Your task to perform on an android device: Go to location settings Image 0: 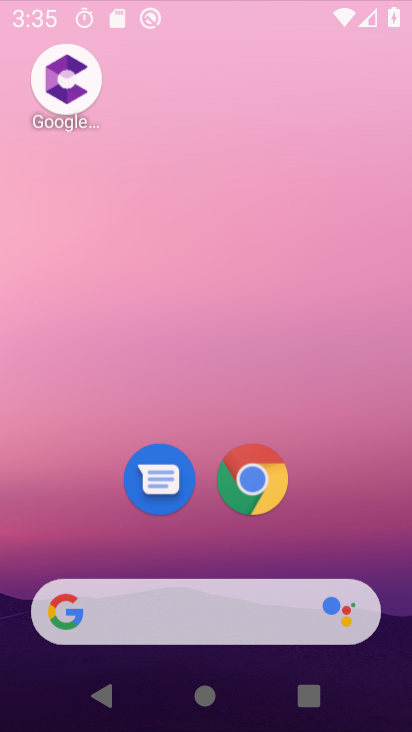
Step 0: press home button
Your task to perform on an android device: Go to location settings Image 1: 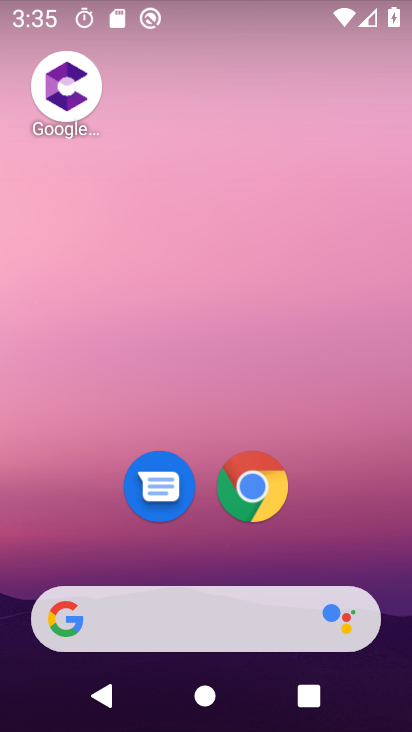
Step 1: drag from (355, 541) to (350, 55)
Your task to perform on an android device: Go to location settings Image 2: 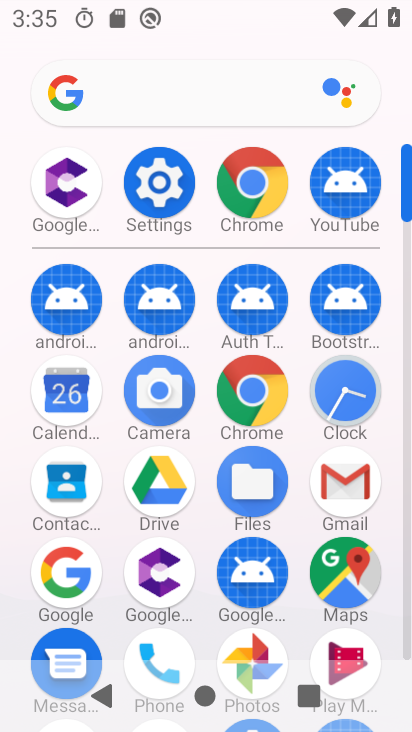
Step 2: click (165, 183)
Your task to perform on an android device: Go to location settings Image 3: 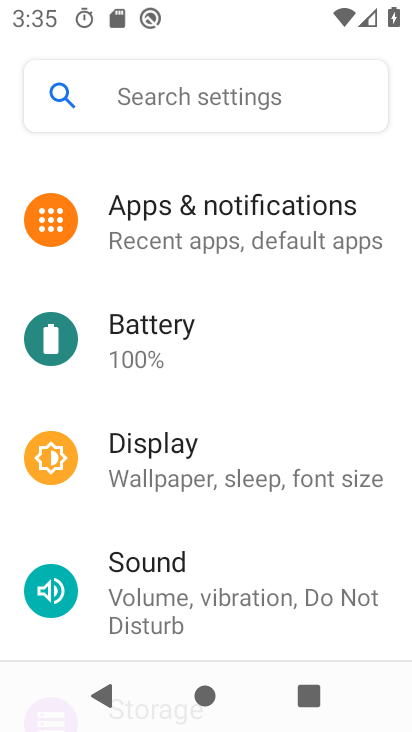
Step 3: drag from (358, 387) to (356, 276)
Your task to perform on an android device: Go to location settings Image 4: 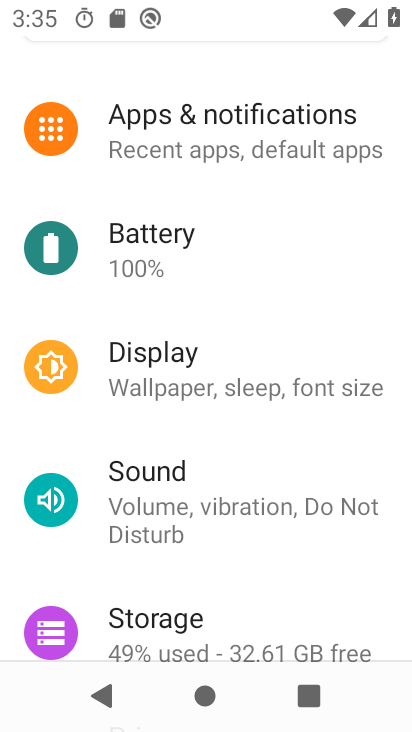
Step 4: drag from (345, 464) to (345, 342)
Your task to perform on an android device: Go to location settings Image 5: 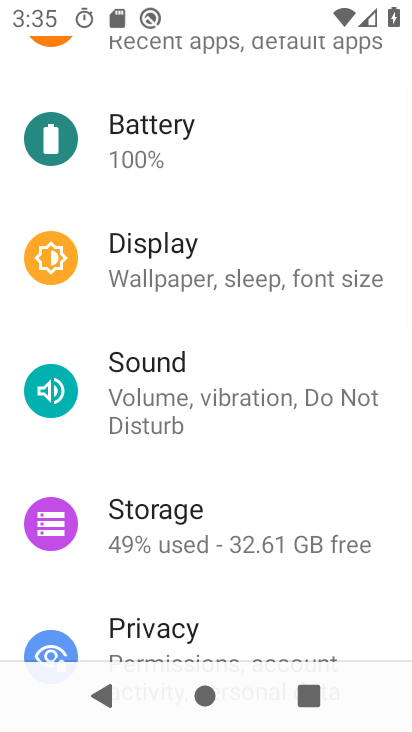
Step 5: drag from (341, 496) to (342, 295)
Your task to perform on an android device: Go to location settings Image 6: 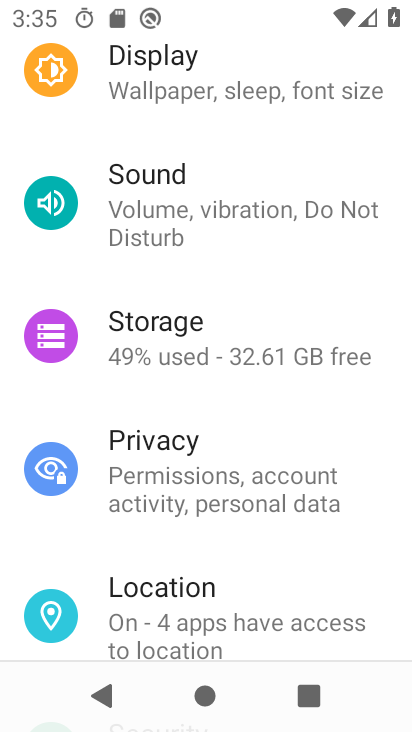
Step 6: drag from (368, 513) to (362, 377)
Your task to perform on an android device: Go to location settings Image 7: 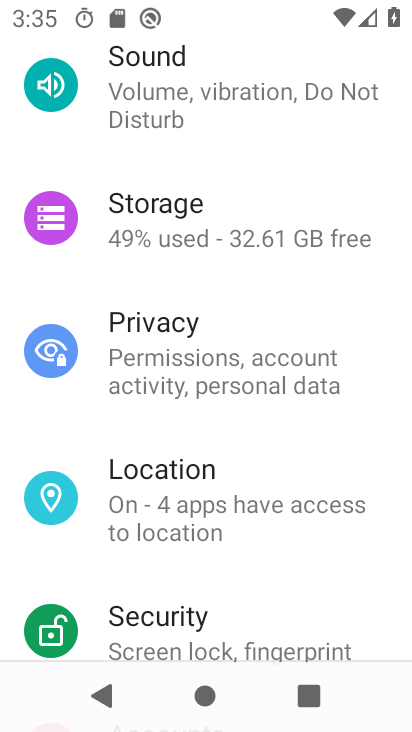
Step 7: drag from (338, 548) to (333, 360)
Your task to perform on an android device: Go to location settings Image 8: 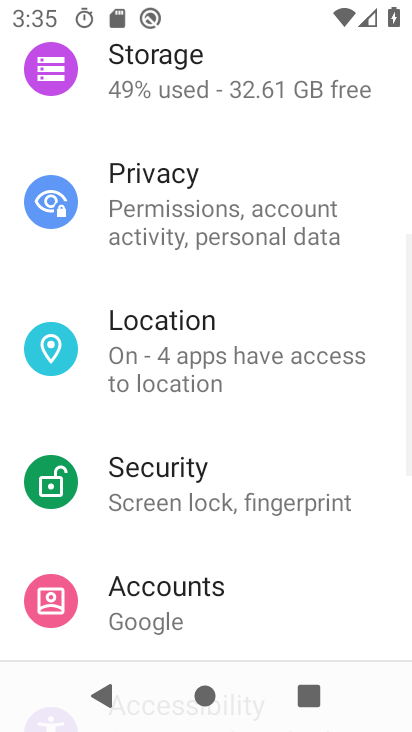
Step 8: drag from (345, 603) to (352, 429)
Your task to perform on an android device: Go to location settings Image 9: 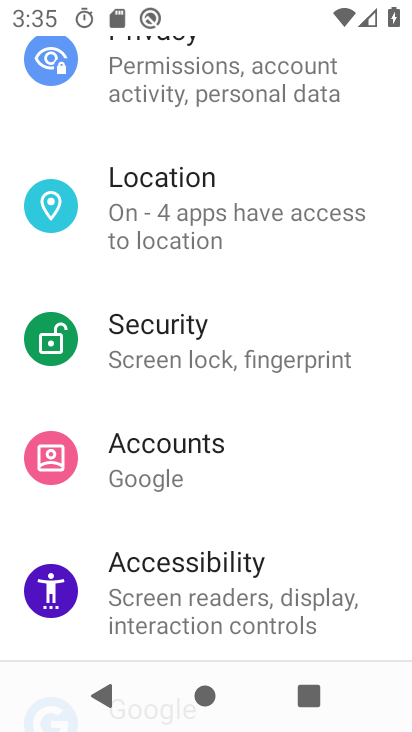
Step 9: drag from (345, 506) to (343, 346)
Your task to perform on an android device: Go to location settings Image 10: 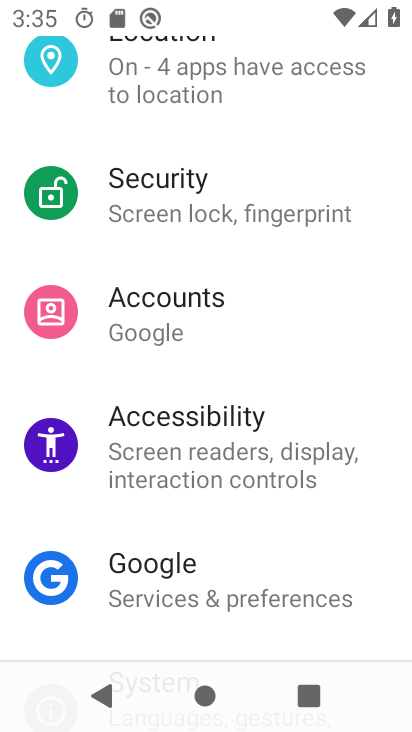
Step 10: drag from (357, 157) to (373, 289)
Your task to perform on an android device: Go to location settings Image 11: 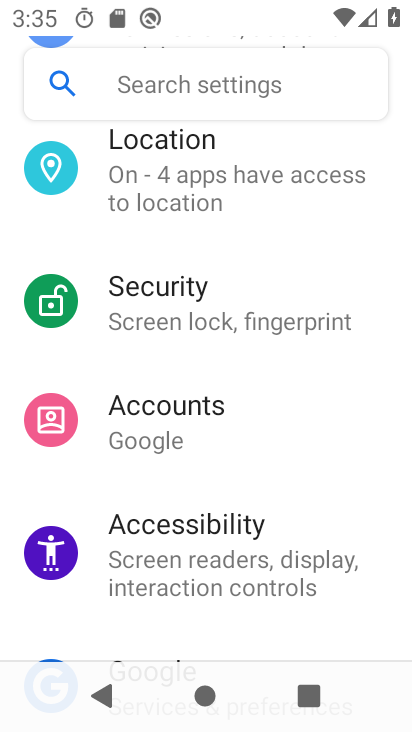
Step 11: drag from (368, 153) to (366, 287)
Your task to perform on an android device: Go to location settings Image 12: 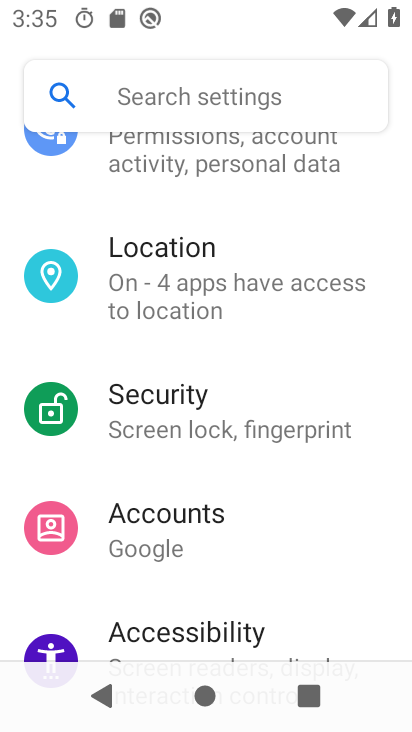
Step 12: drag from (373, 166) to (373, 325)
Your task to perform on an android device: Go to location settings Image 13: 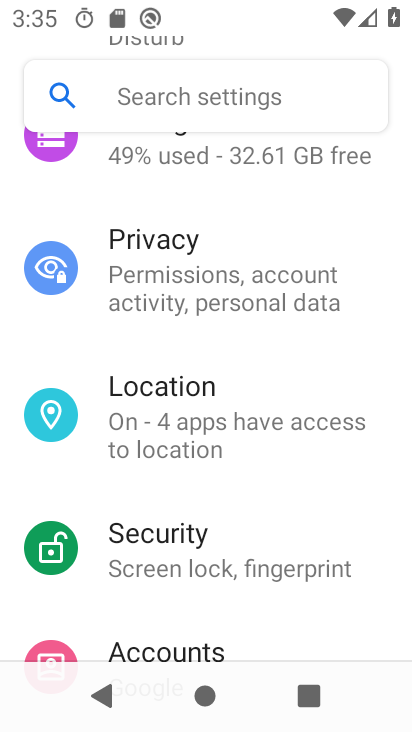
Step 13: drag from (367, 211) to (372, 332)
Your task to perform on an android device: Go to location settings Image 14: 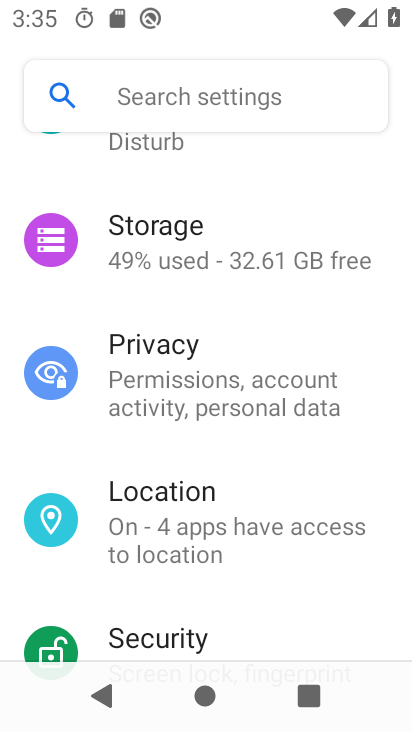
Step 14: drag from (362, 204) to (369, 348)
Your task to perform on an android device: Go to location settings Image 15: 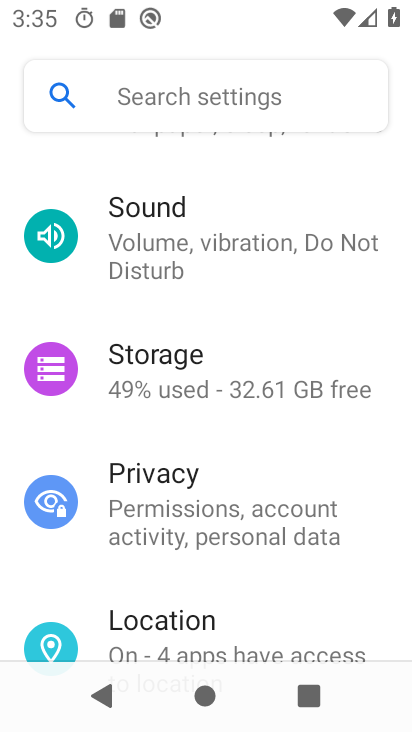
Step 15: drag from (362, 181) to (355, 410)
Your task to perform on an android device: Go to location settings Image 16: 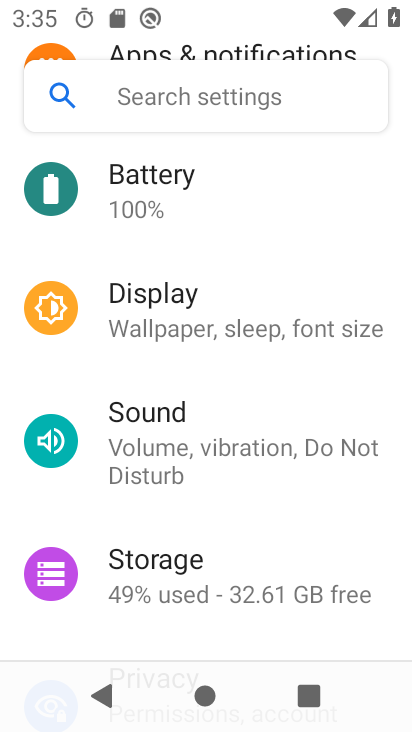
Step 16: drag from (318, 440) to (315, 284)
Your task to perform on an android device: Go to location settings Image 17: 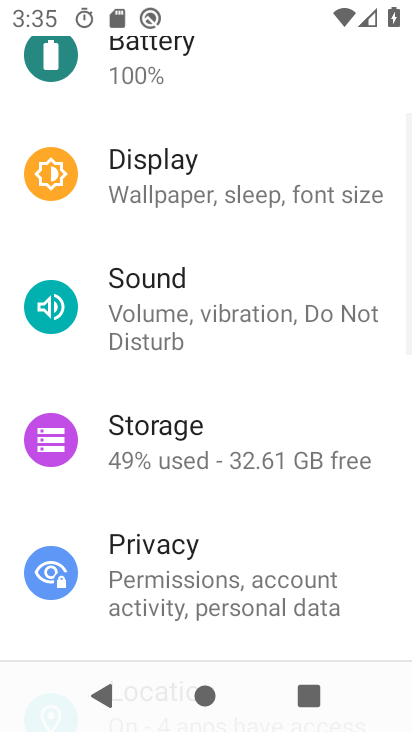
Step 17: drag from (290, 484) to (298, 294)
Your task to perform on an android device: Go to location settings Image 18: 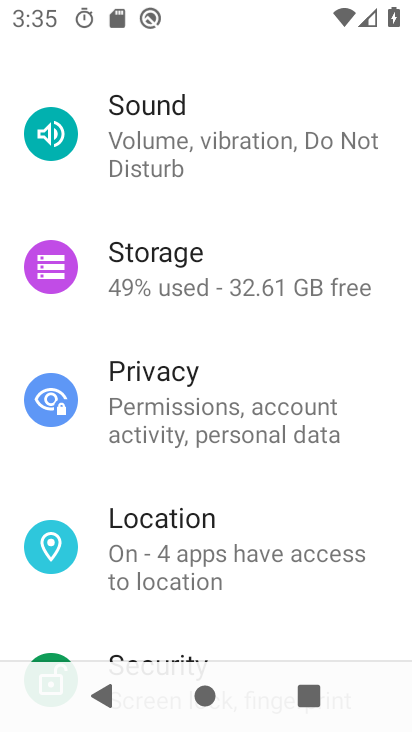
Step 18: drag from (276, 486) to (278, 323)
Your task to perform on an android device: Go to location settings Image 19: 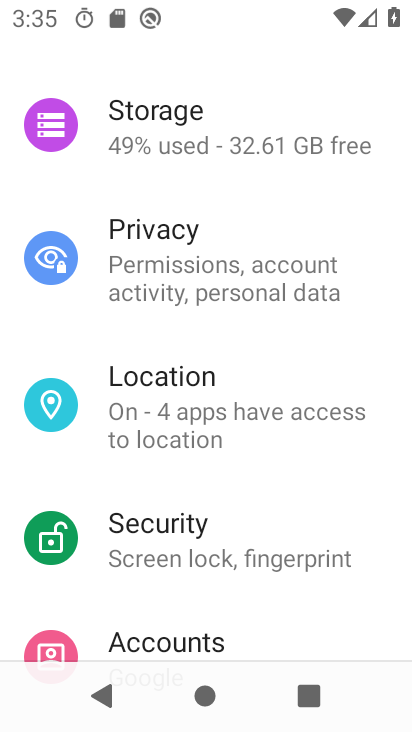
Step 19: click (292, 407)
Your task to perform on an android device: Go to location settings Image 20: 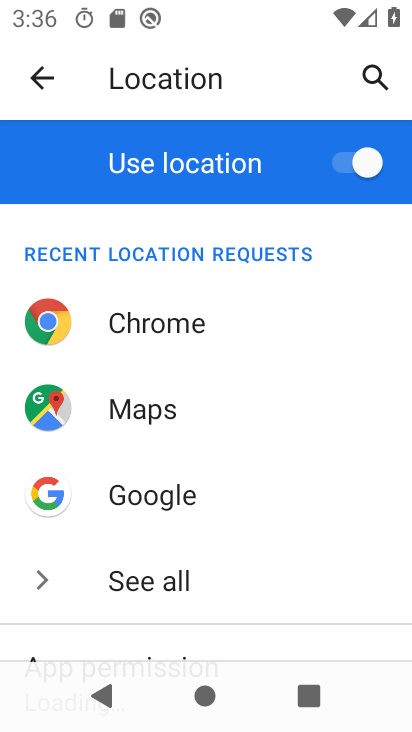
Step 20: task complete